Your task to perform on an android device: check storage Image 0: 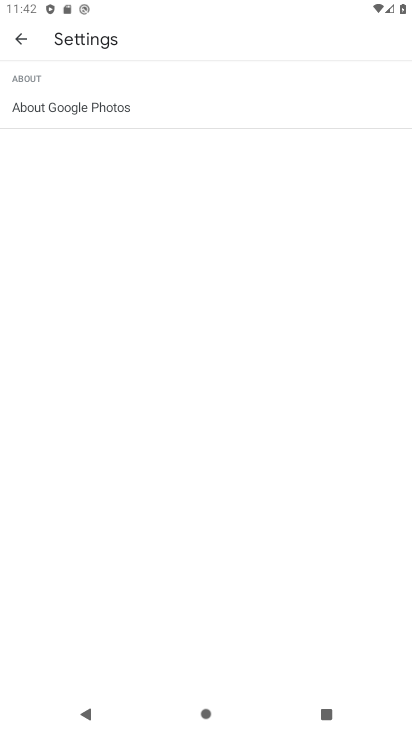
Step 0: press home button
Your task to perform on an android device: check storage Image 1: 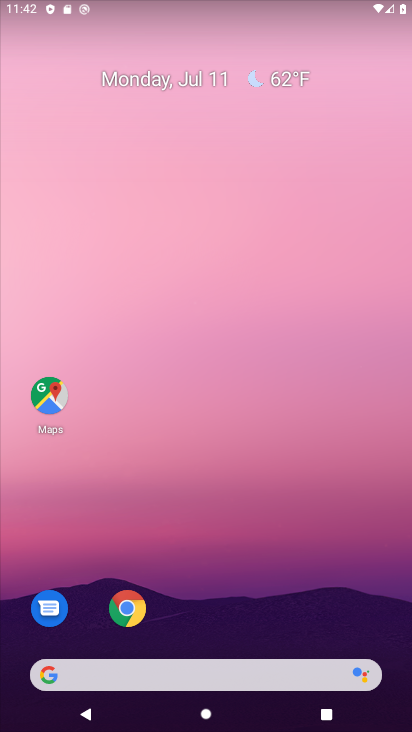
Step 1: drag from (330, 571) to (305, 30)
Your task to perform on an android device: check storage Image 2: 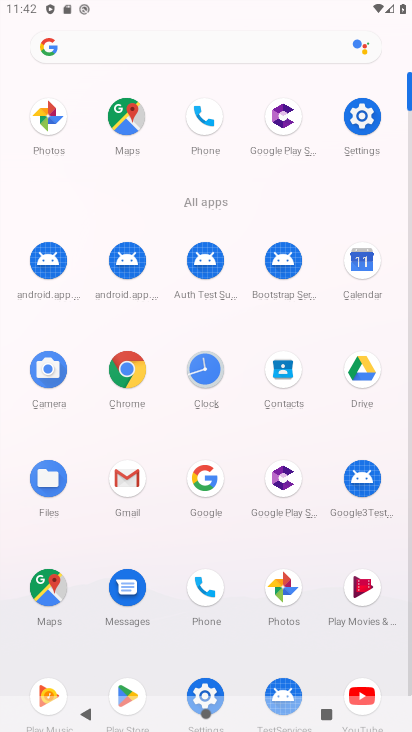
Step 2: click (361, 122)
Your task to perform on an android device: check storage Image 3: 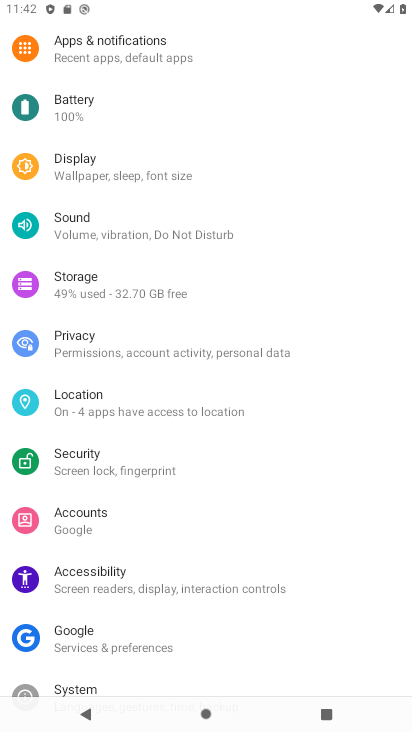
Step 3: click (116, 291)
Your task to perform on an android device: check storage Image 4: 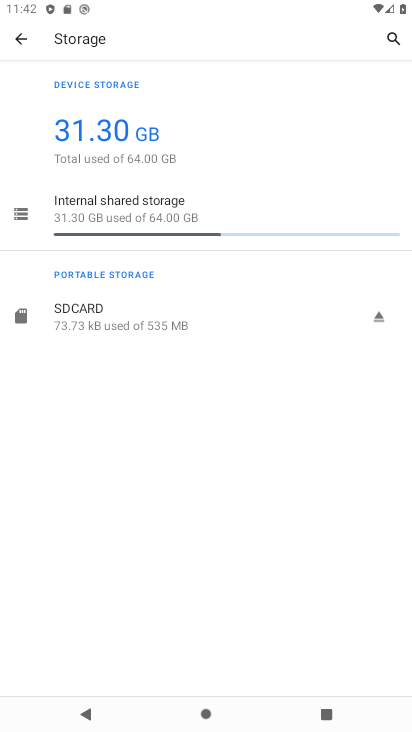
Step 4: click (141, 227)
Your task to perform on an android device: check storage Image 5: 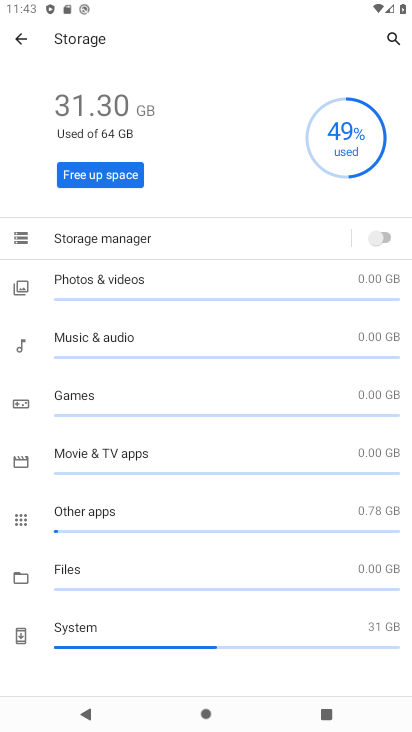
Step 5: task complete